Your task to perform on an android device: toggle notification dots Image 0: 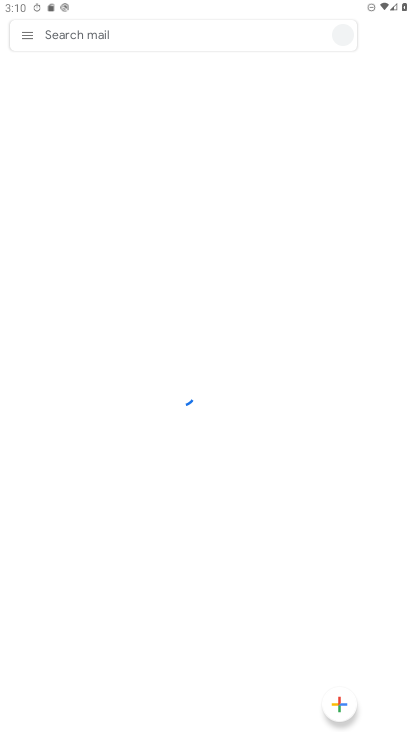
Step 0: press home button
Your task to perform on an android device: toggle notification dots Image 1: 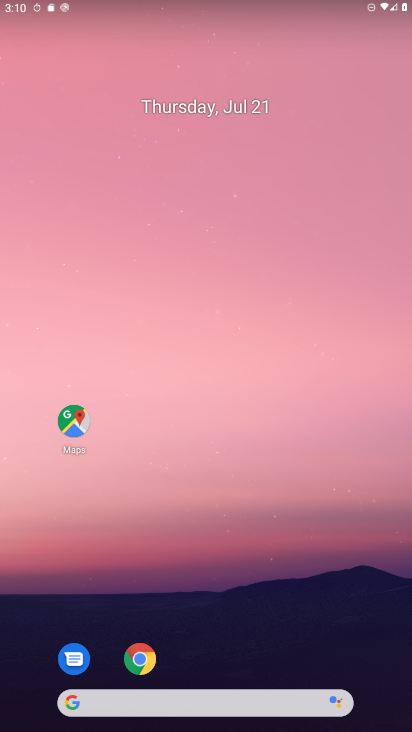
Step 1: drag from (129, 729) to (210, 43)
Your task to perform on an android device: toggle notification dots Image 2: 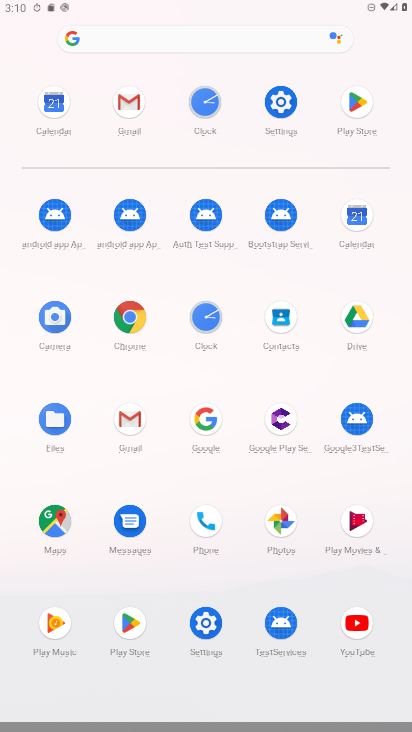
Step 2: click (295, 103)
Your task to perform on an android device: toggle notification dots Image 3: 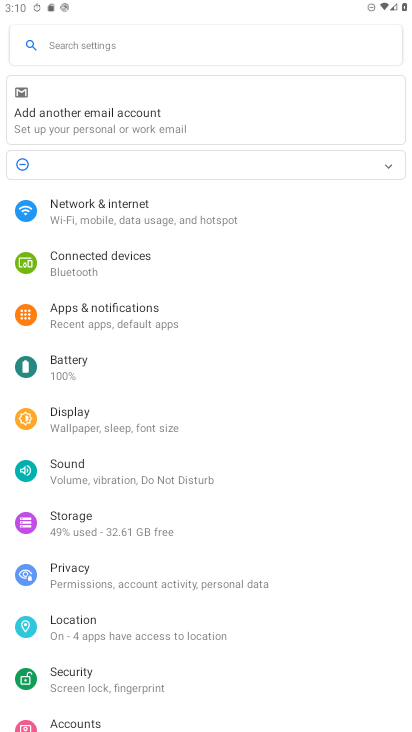
Step 3: click (131, 324)
Your task to perform on an android device: toggle notification dots Image 4: 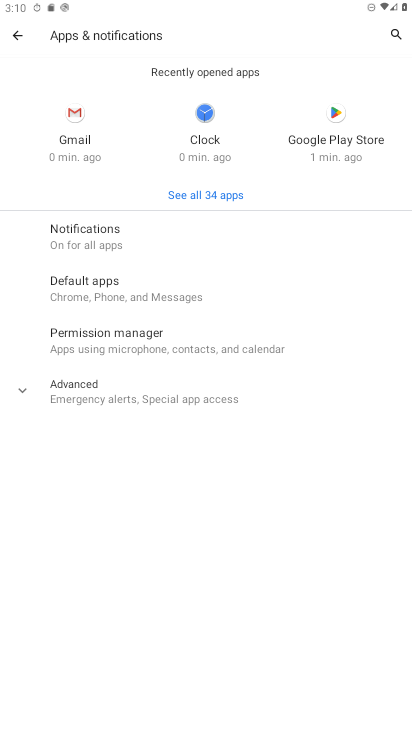
Step 4: click (132, 253)
Your task to perform on an android device: toggle notification dots Image 5: 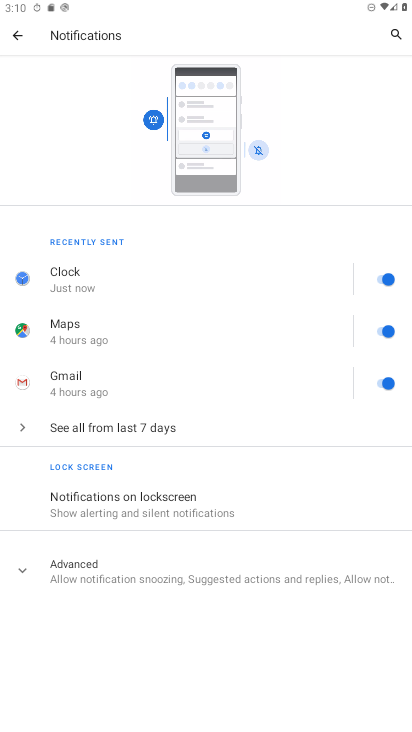
Step 5: click (146, 582)
Your task to perform on an android device: toggle notification dots Image 6: 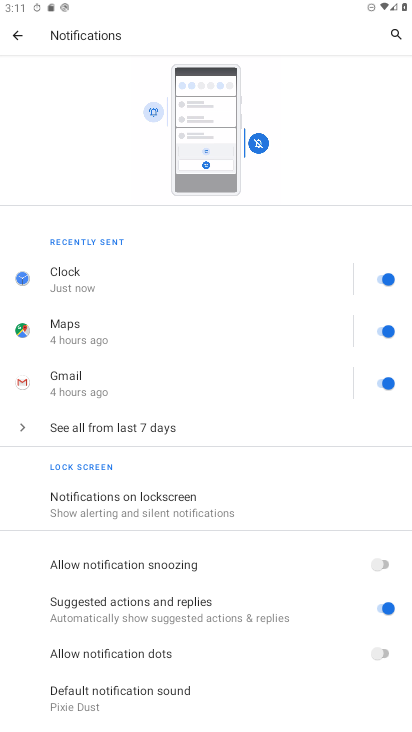
Step 6: click (382, 660)
Your task to perform on an android device: toggle notification dots Image 7: 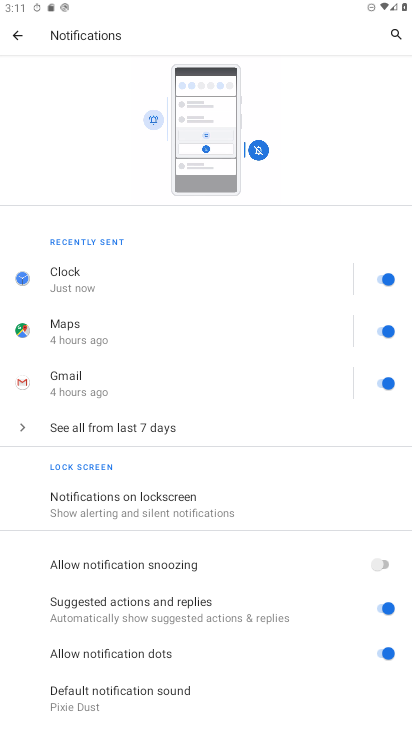
Step 7: task complete